Your task to perform on an android device: Open display settings Image 0: 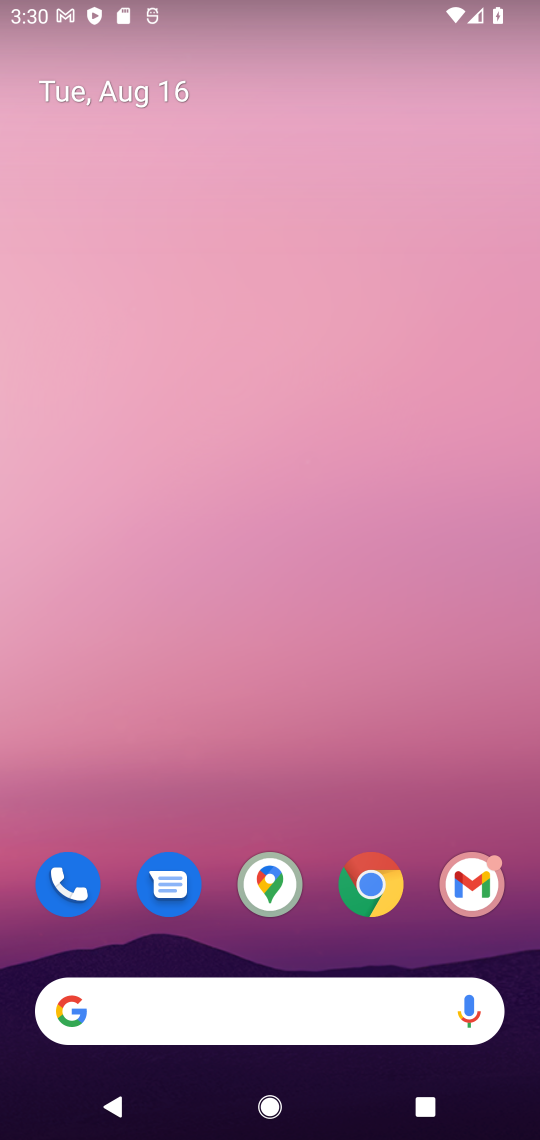
Step 0: drag from (260, 440) to (289, 49)
Your task to perform on an android device: Open display settings Image 1: 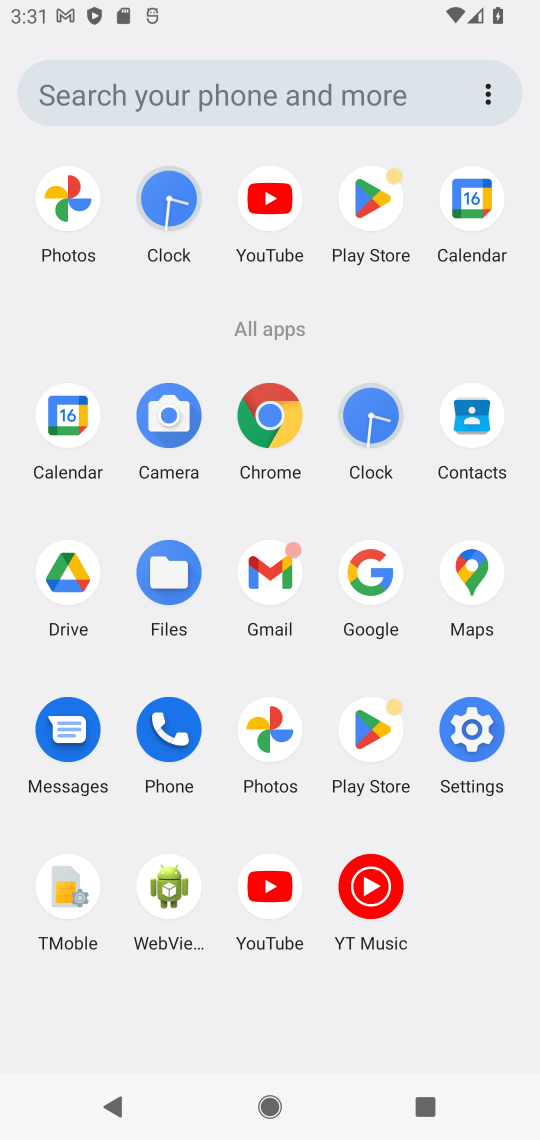
Step 1: click (454, 710)
Your task to perform on an android device: Open display settings Image 2: 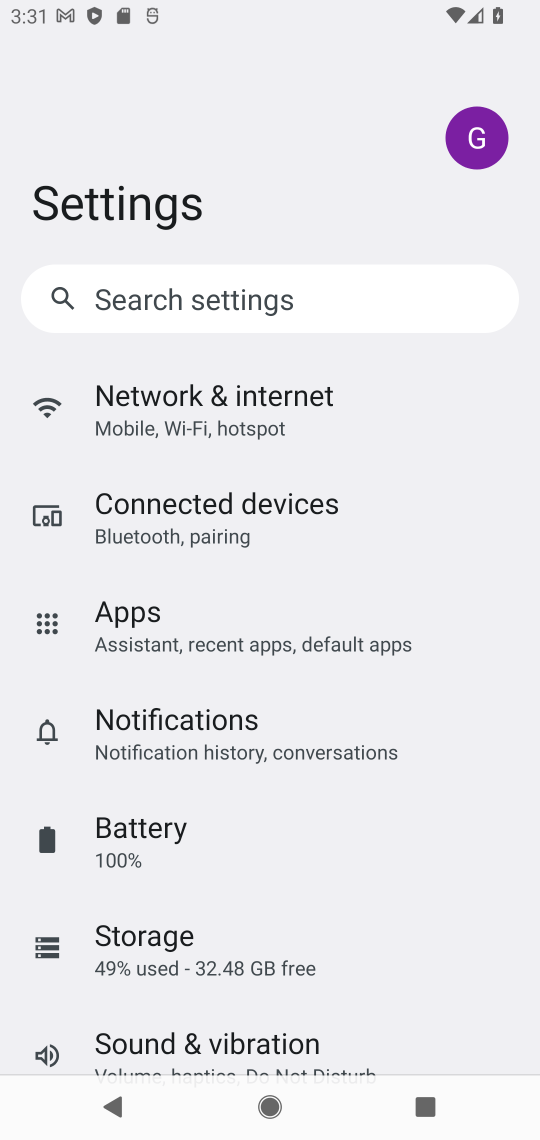
Step 2: drag from (254, 871) to (259, 323)
Your task to perform on an android device: Open display settings Image 3: 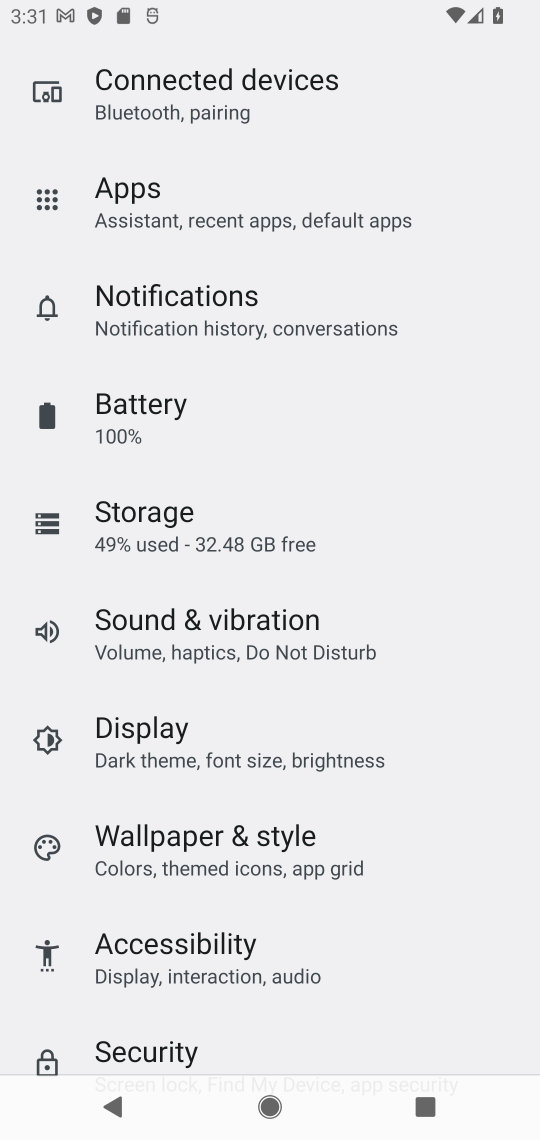
Step 3: click (132, 725)
Your task to perform on an android device: Open display settings Image 4: 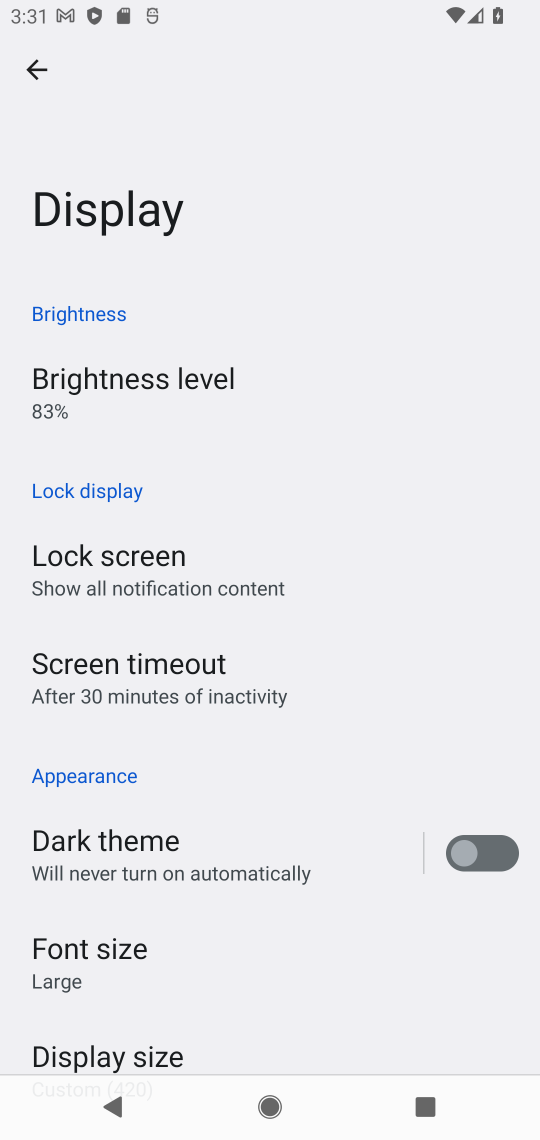
Step 4: task complete